Your task to perform on an android device: turn on javascript in the chrome app Image 0: 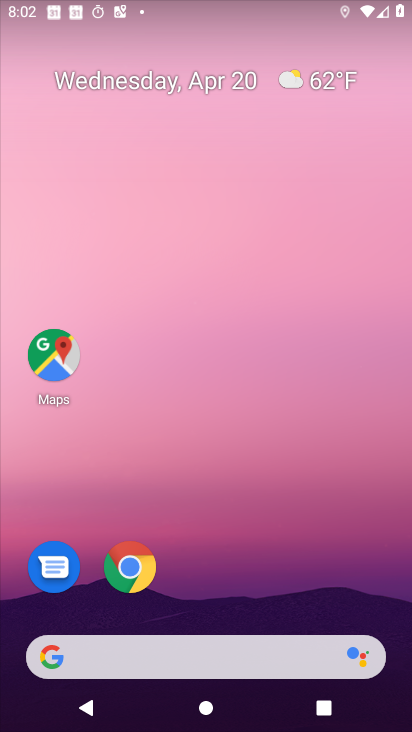
Step 0: click (129, 569)
Your task to perform on an android device: turn on javascript in the chrome app Image 1: 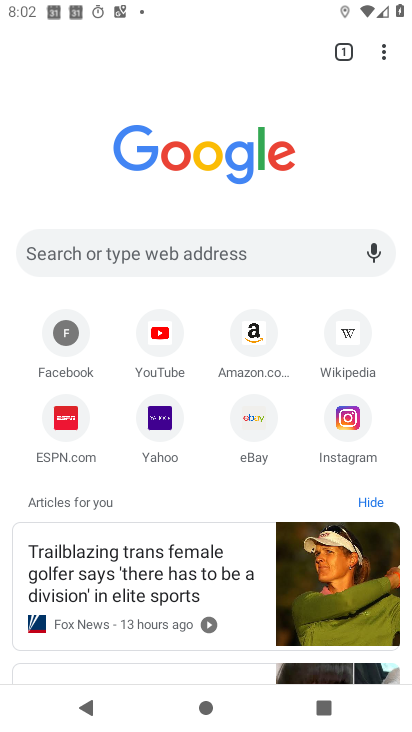
Step 1: click (383, 53)
Your task to perform on an android device: turn on javascript in the chrome app Image 2: 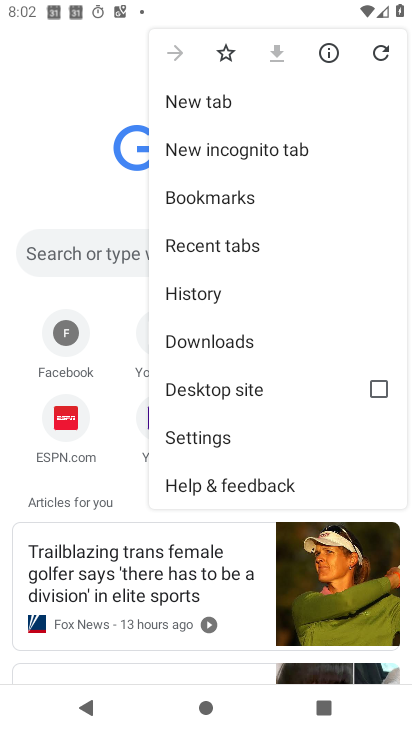
Step 2: click (177, 427)
Your task to perform on an android device: turn on javascript in the chrome app Image 3: 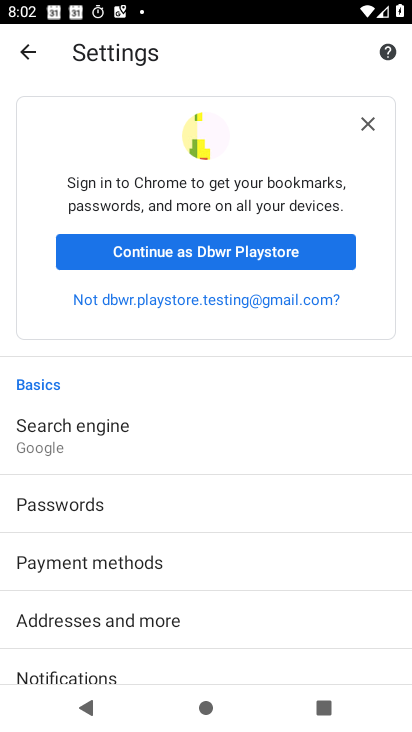
Step 3: drag from (251, 657) to (313, 153)
Your task to perform on an android device: turn on javascript in the chrome app Image 4: 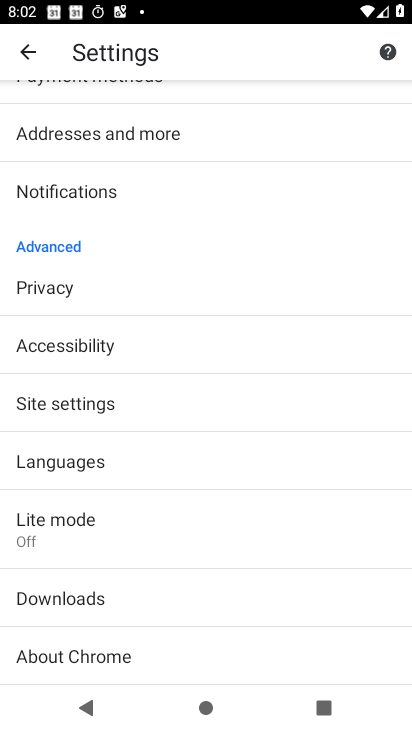
Step 4: click (66, 399)
Your task to perform on an android device: turn on javascript in the chrome app Image 5: 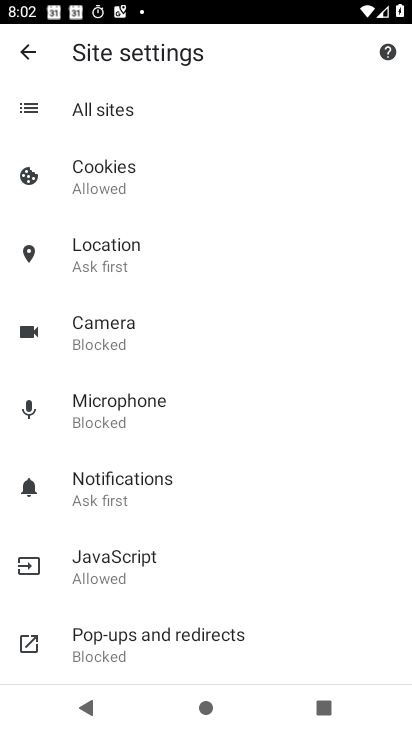
Step 5: click (86, 563)
Your task to perform on an android device: turn on javascript in the chrome app Image 6: 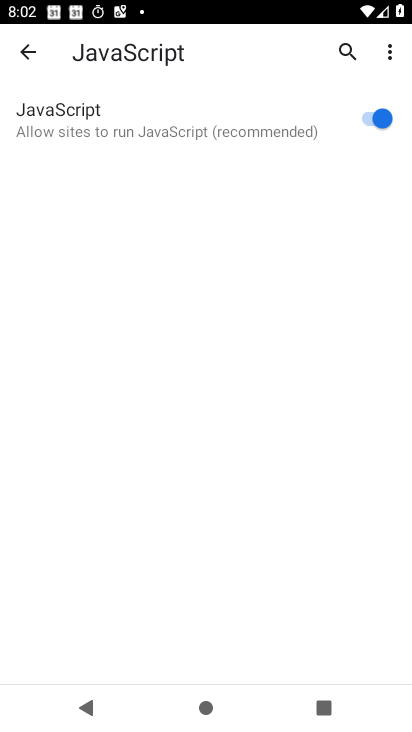
Step 6: task complete